Your task to perform on an android device: open app "Reddit" Image 0: 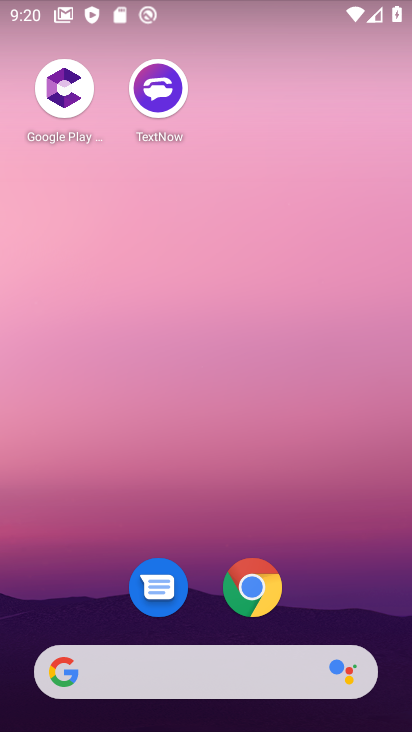
Step 0: click (185, 625)
Your task to perform on an android device: open app "Reddit" Image 1: 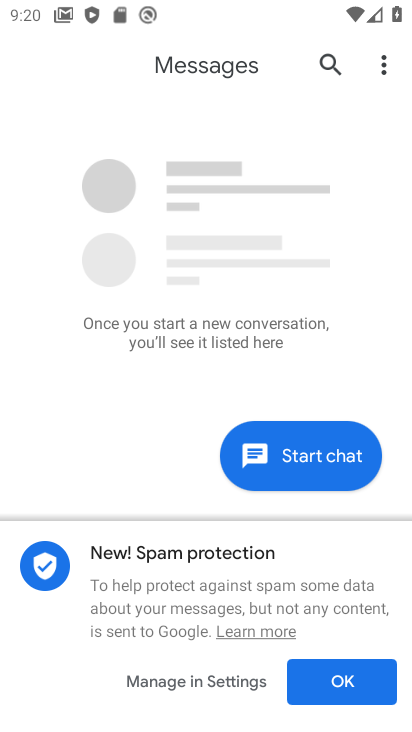
Step 1: press home button
Your task to perform on an android device: open app "Reddit" Image 2: 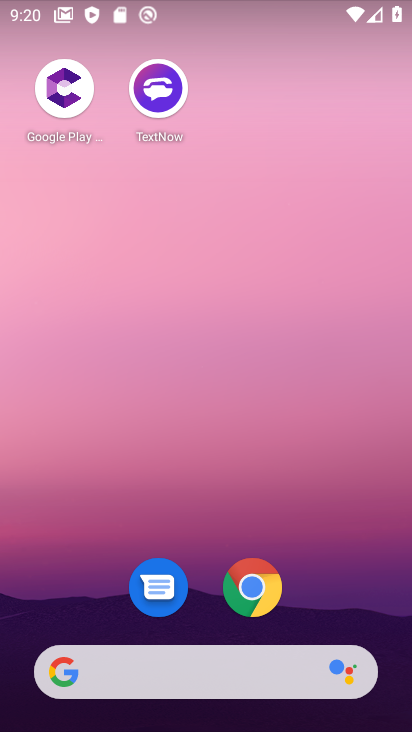
Step 2: click (200, 624)
Your task to perform on an android device: open app "Reddit" Image 3: 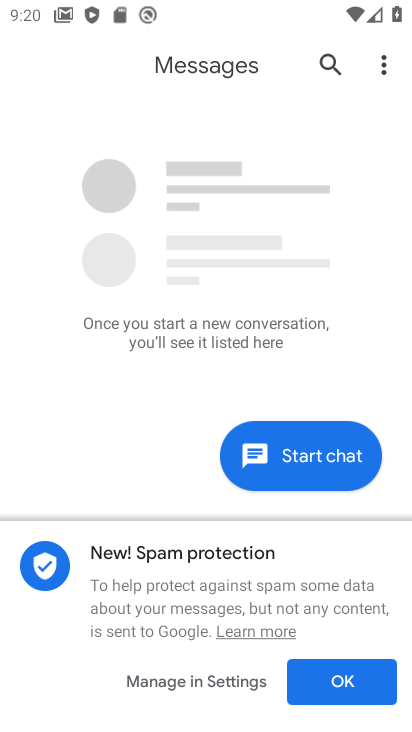
Step 3: press home button
Your task to perform on an android device: open app "Reddit" Image 4: 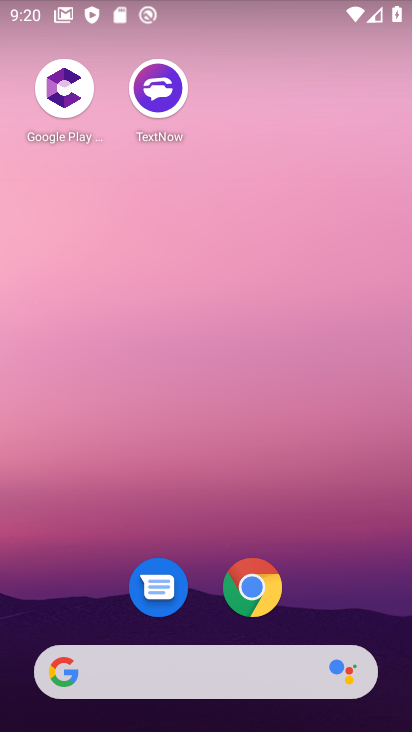
Step 4: click (201, 593)
Your task to perform on an android device: open app "Reddit" Image 5: 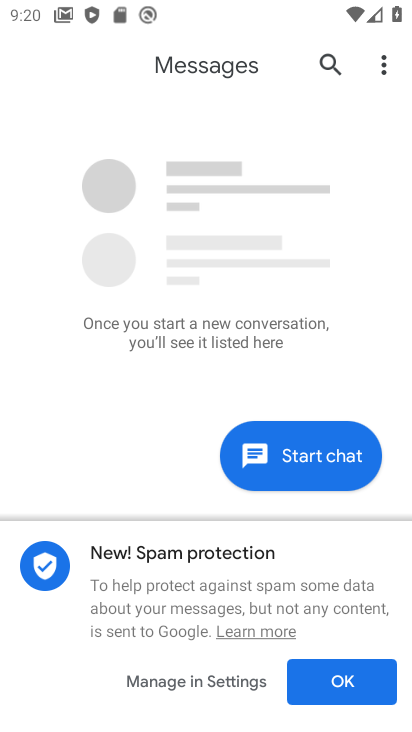
Step 5: press back button
Your task to perform on an android device: open app "Reddit" Image 6: 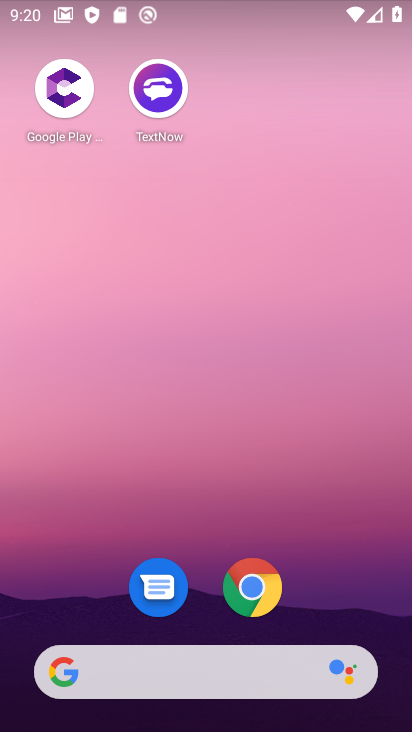
Step 6: drag from (216, 593) to (155, 59)
Your task to perform on an android device: open app "Reddit" Image 7: 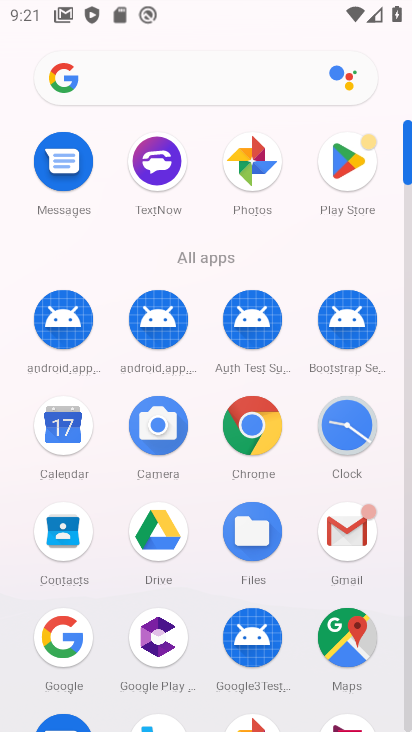
Step 7: click (310, 680)
Your task to perform on an android device: open app "Reddit" Image 8: 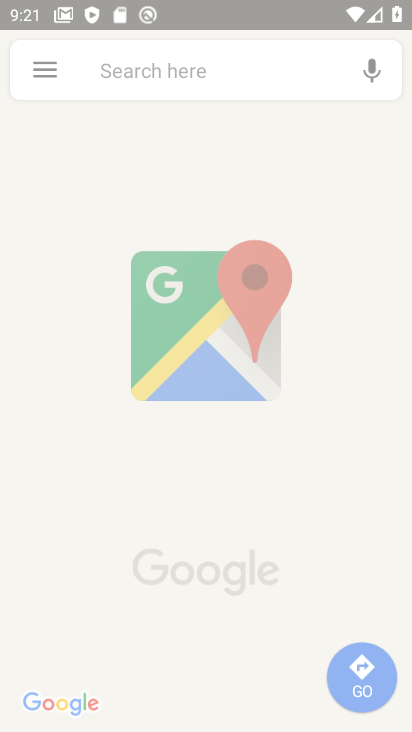
Step 8: press back button
Your task to perform on an android device: open app "Reddit" Image 9: 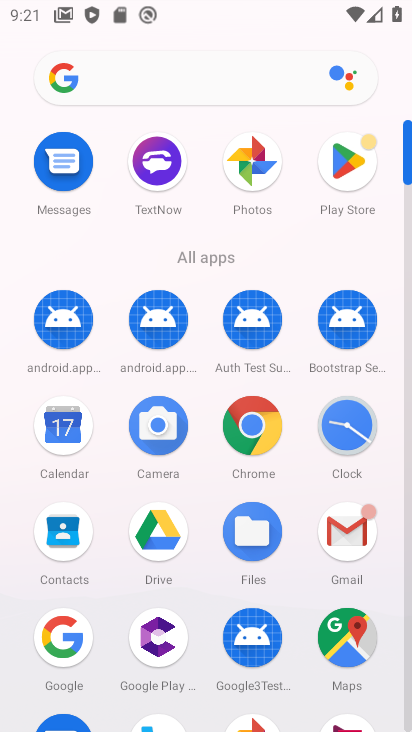
Step 9: click (340, 177)
Your task to perform on an android device: open app "Reddit" Image 10: 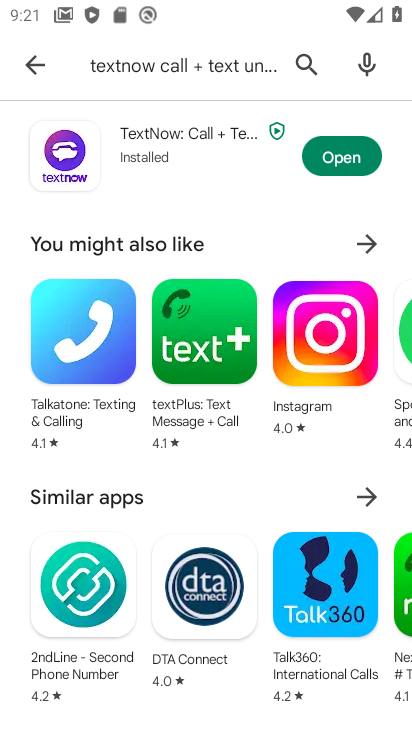
Step 10: click (35, 65)
Your task to perform on an android device: open app "Reddit" Image 11: 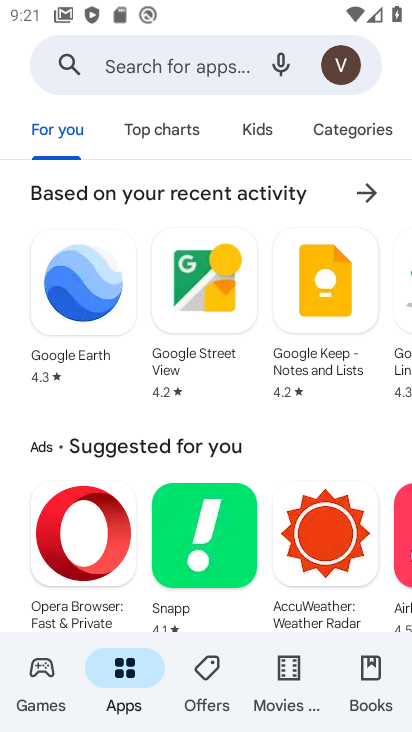
Step 11: click (154, 59)
Your task to perform on an android device: open app "Reddit" Image 12: 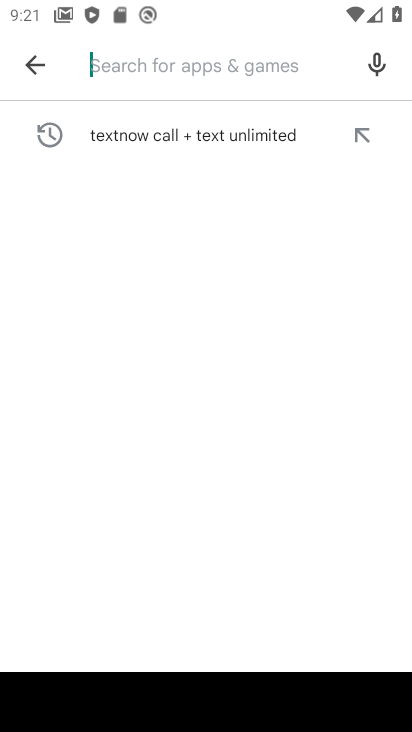
Step 12: type "reddit.com"
Your task to perform on an android device: open app "Reddit" Image 13: 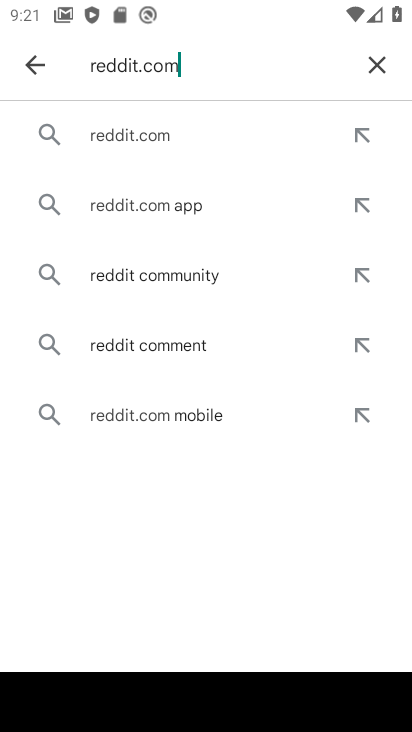
Step 13: click (145, 127)
Your task to perform on an android device: open app "Reddit" Image 14: 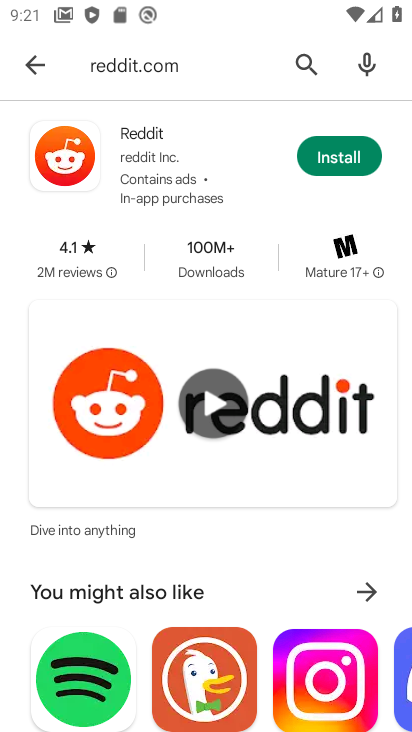
Step 14: click (334, 153)
Your task to perform on an android device: open app "Reddit" Image 15: 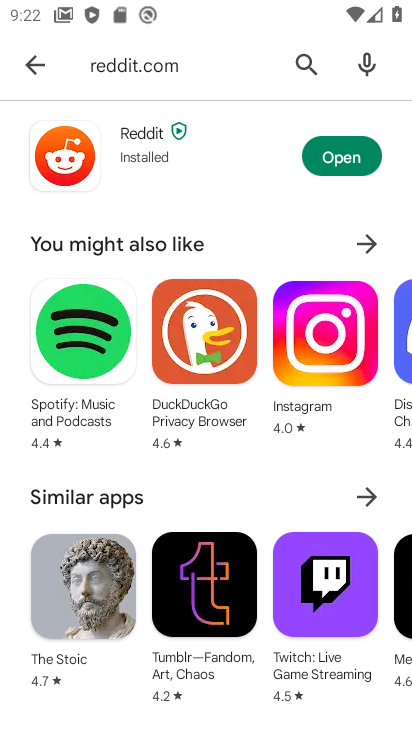
Step 15: click (332, 165)
Your task to perform on an android device: open app "Reddit" Image 16: 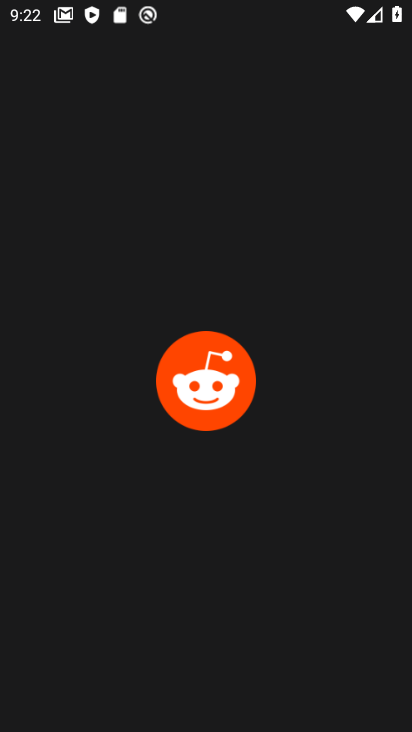
Step 16: task complete